Your task to perform on an android device: Open Amazon Image 0: 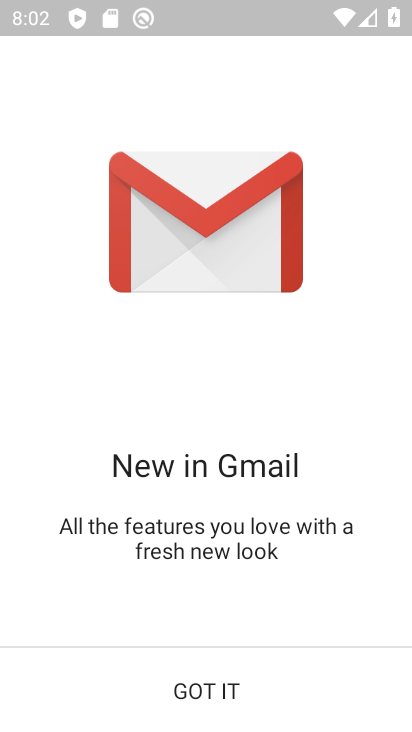
Step 0: press back button
Your task to perform on an android device: Open Amazon Image 1: 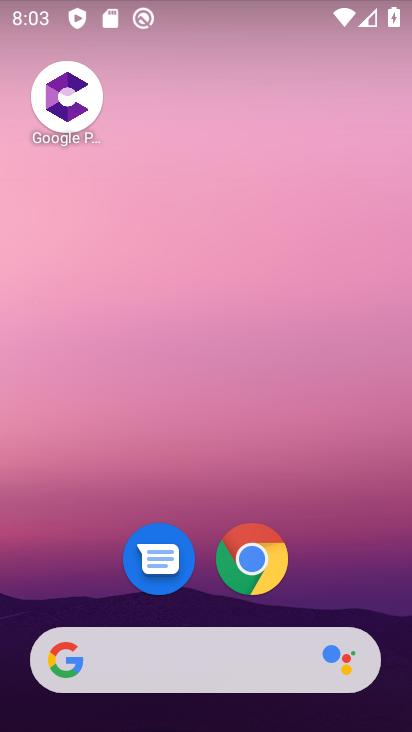
Step 1: click (252, 570)
Your task to perform on an android device: Open Amazon Image 2: 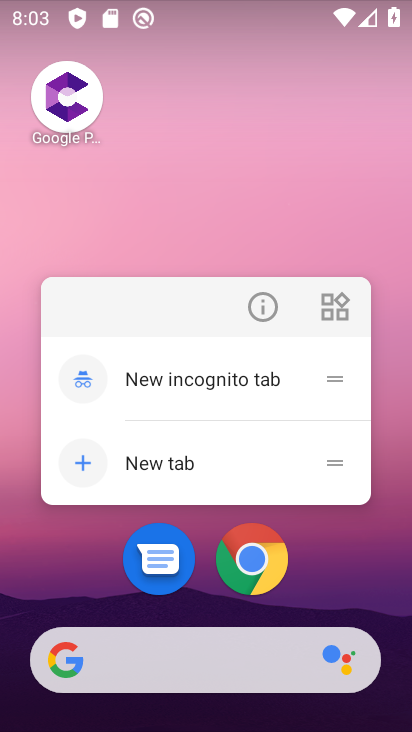
Step 2: click (269, 587)
Your task to perform on an android device: Open Amazon Image 3: 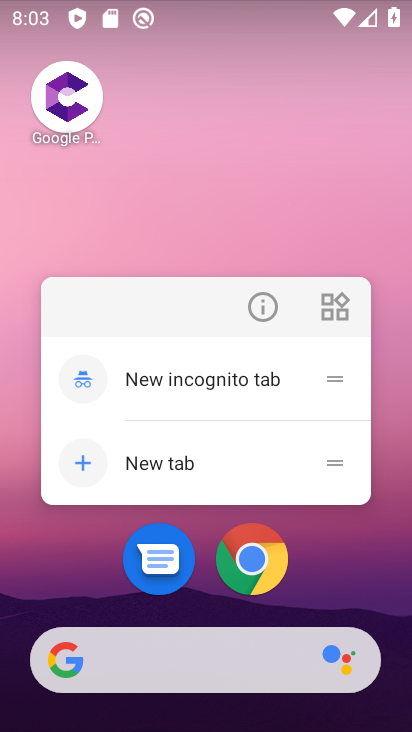
Step 3: click (262, 575)
Your task to perform on an android device: Open Amazon Image 4: 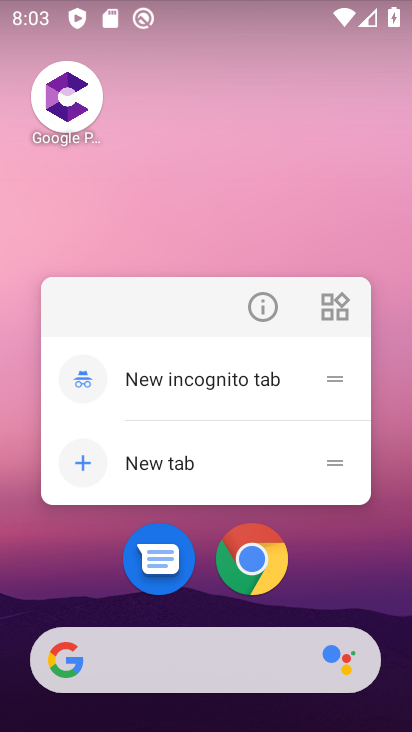
Step 4: click (269, 555)
Your task to perform on an android device: Open Amazon Image 5: 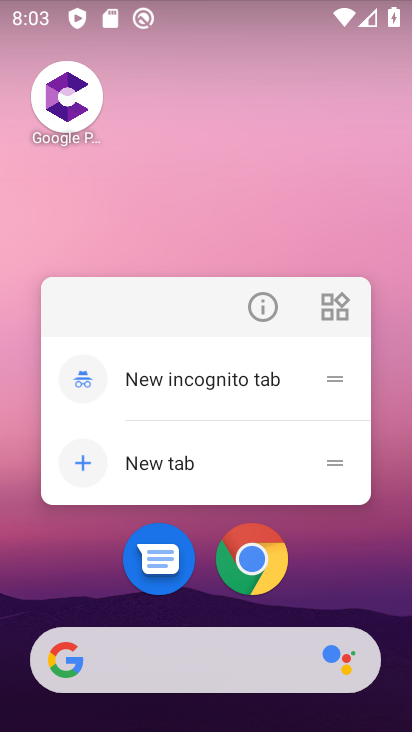
Step 5: click (258, 561)
Your task to perform on an android device: Open Amazon Image 6: 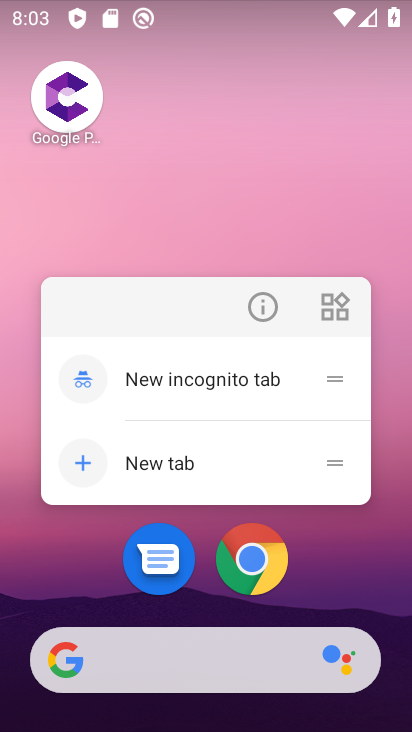
Step 6: click (248, 576)
Your task to perform on an android device: Open Amazon Image 7: 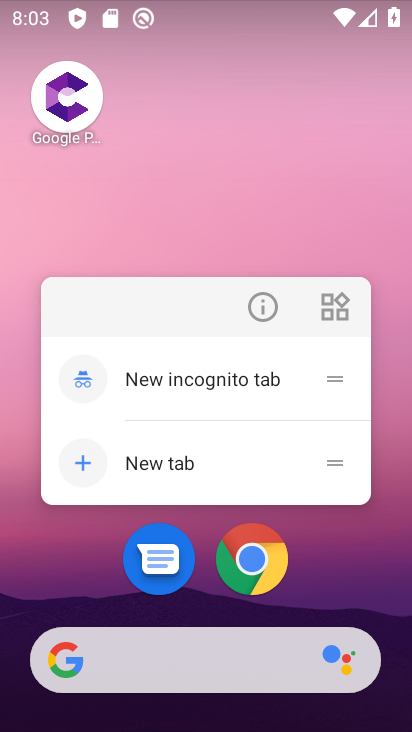
Step 7: click (258, 563)
Your task to perform on an android device: Open Amazon Image 8: 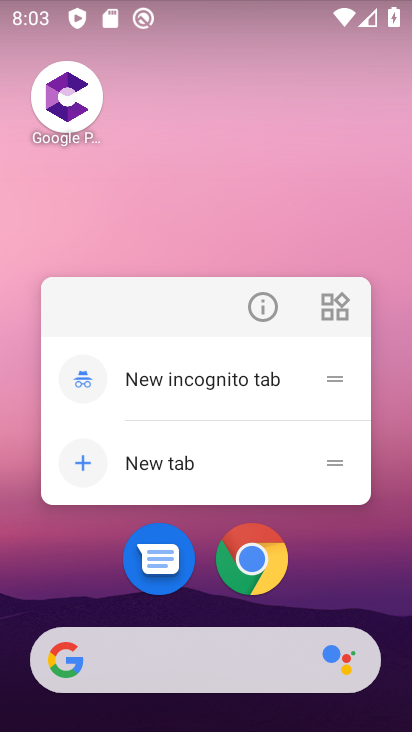
Step 8: click (249, 554)
Your task to perform on an android device: Open Amazon Image 9: 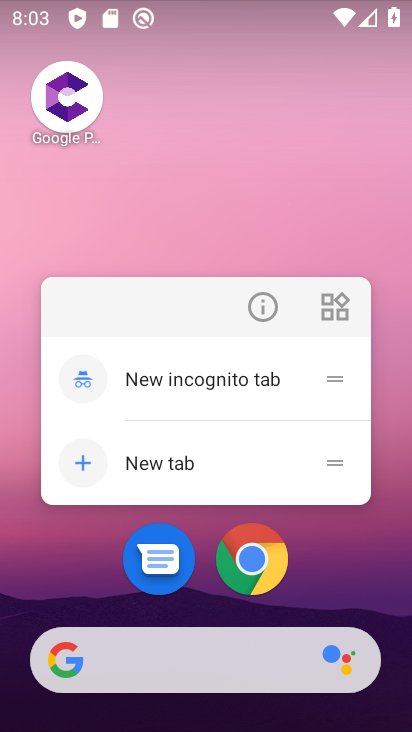
Step 9: click (261, 567)
Your task to perform on an android device: Open Amazon Image 10: 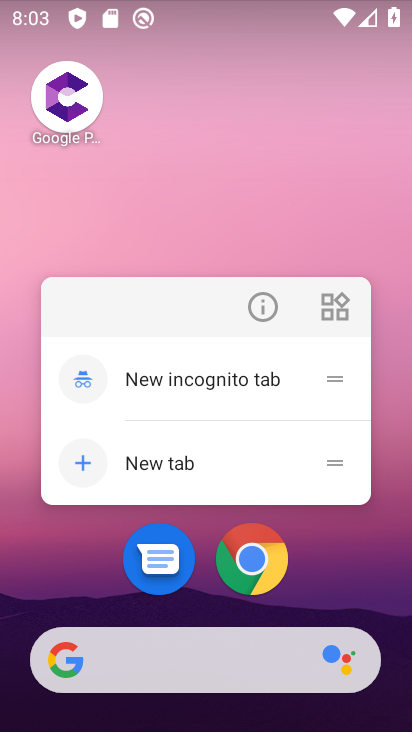
Step 10: click (271, 574)
Your task to perform on an android device: Open Amazon Image 11: 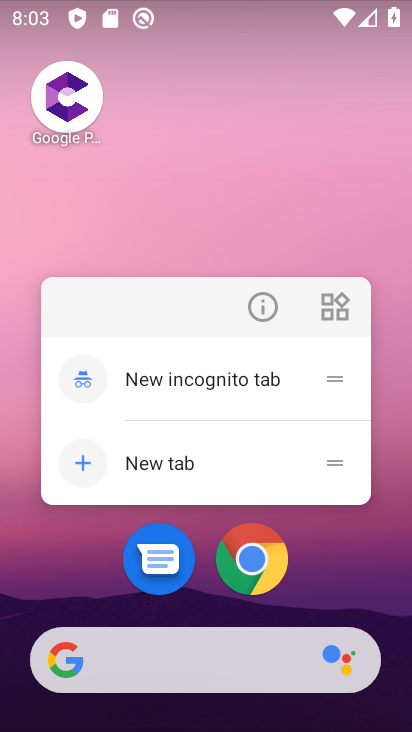
Step 11: click (272, 562)
Your task to perform on an android device: Open Amazon Image 12: 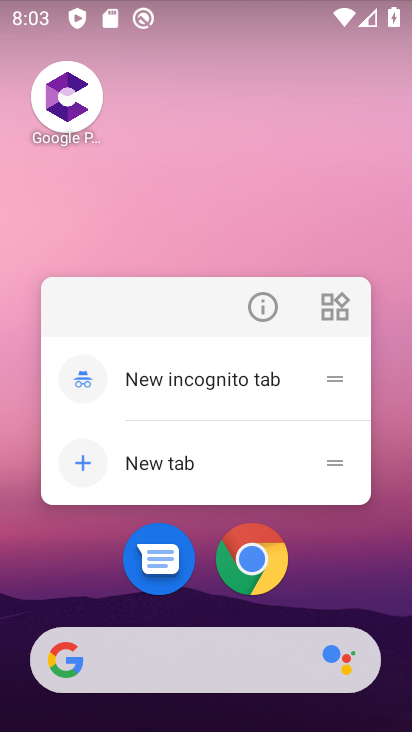
Step 12: click (244, 573)
Your task to perform on an android device: Open Amazon Image 13: 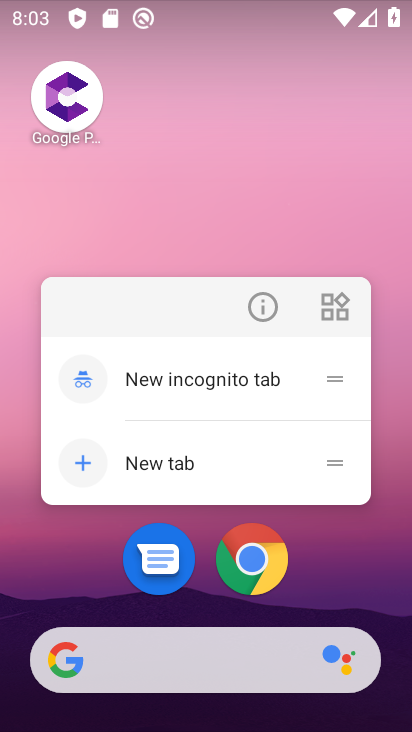
Step 13: click (245, 549)
Your task to perform on an android device: Open Amazon Image 14: 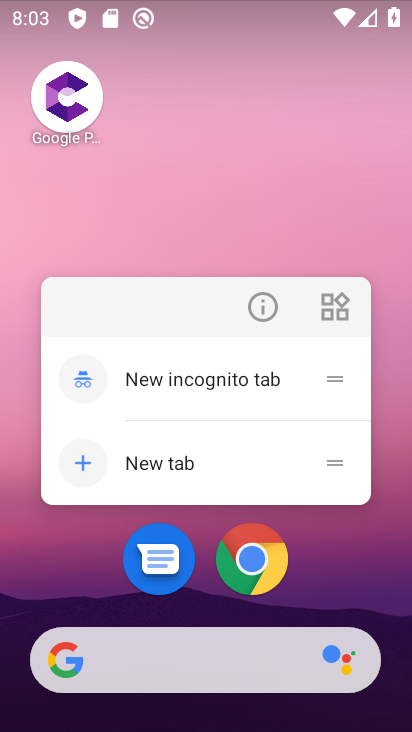
Step 14: click (246, 528)
Your task to perform on an android device: Open Amazon Image 15: 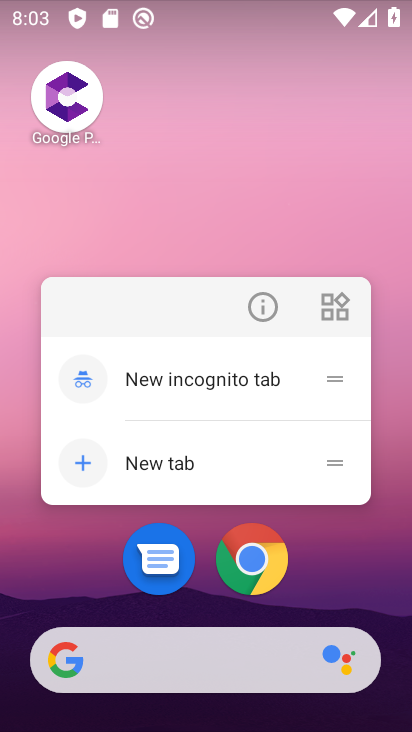
Step 15: click (261, 576)
Your task to perform on an android device: Open Amazon Image 16: 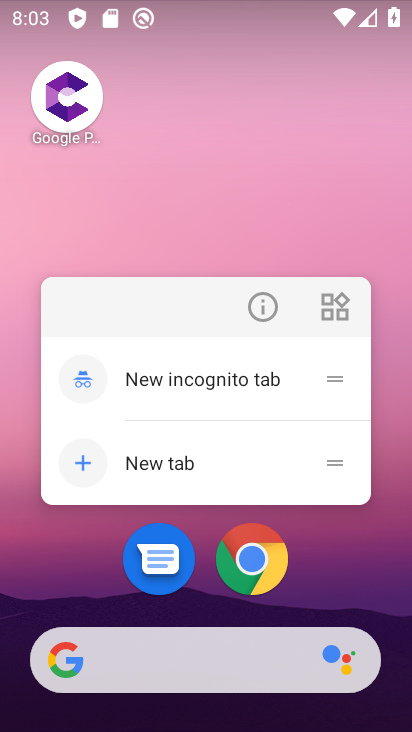
Step 16: click (272, 574)
Your task to perform on an android device: Open Amazon Image 17: 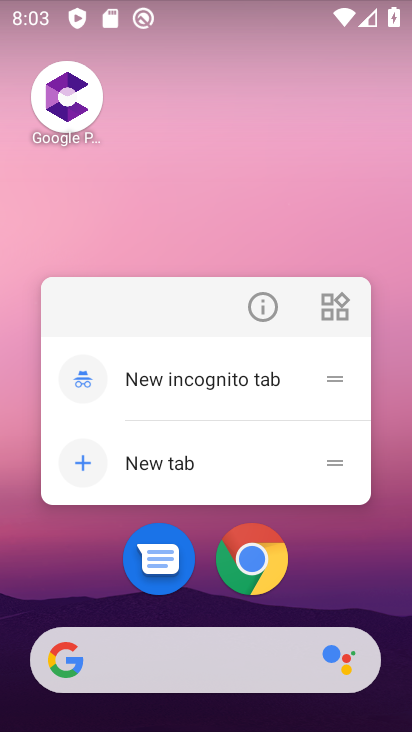
Step 17: click (271, 573)
Your task to perform on an android device: Open Amazon Image 18: 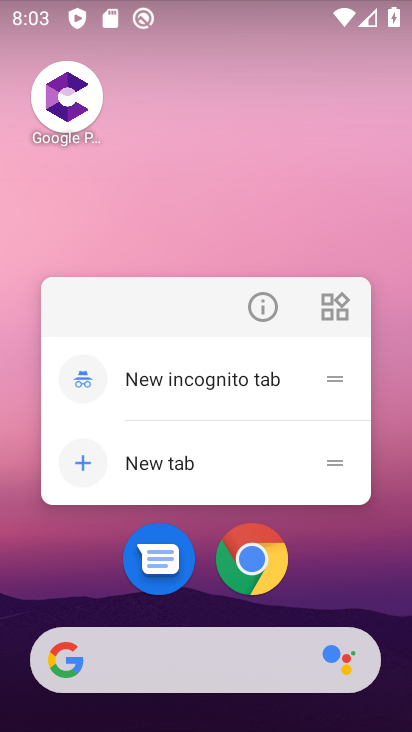
Step 18: click (270, 563)
Your task to perform on an android device: Open Amazon Image 19: 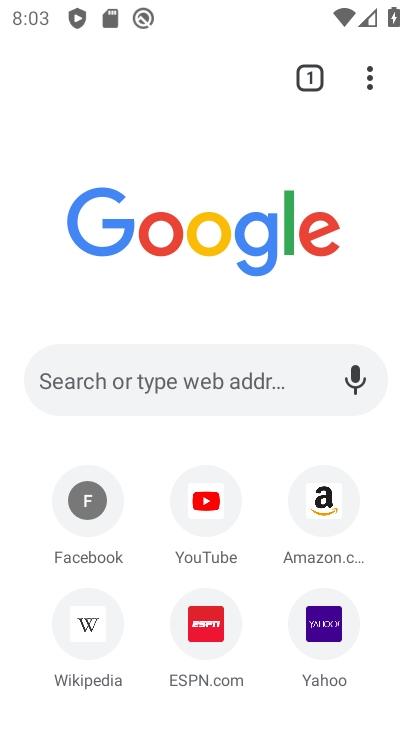
Step 19: click (316, 501)
Your task to perform on an android device: Open Amazon Image 20: 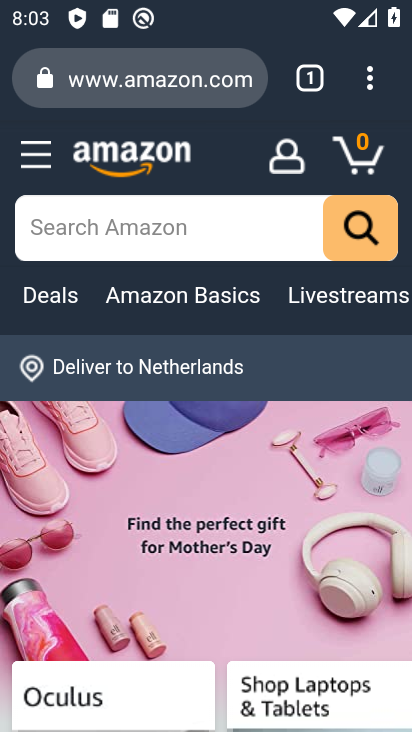
Step 20: task complete